Your task to perform on an android device: Show me the alarms in the clock app Image 0: 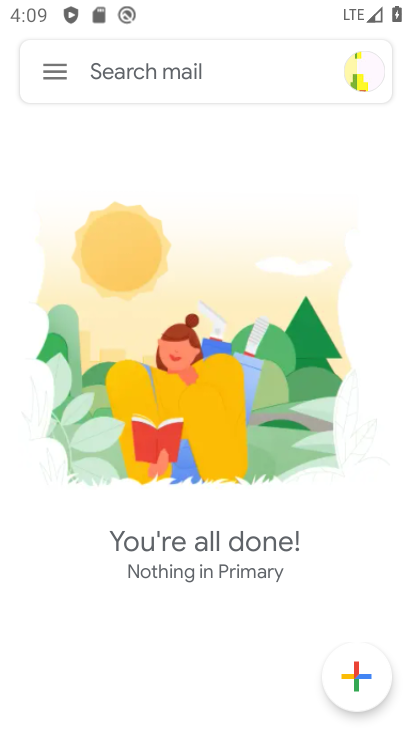
Step 0: press home button
Your task to perform on an android device: Show me the alarms in the clock app Image 1: 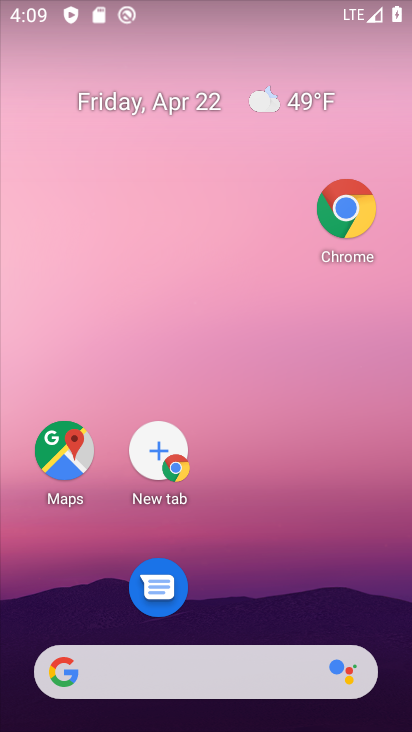
Step 1: drag from (243, 589) to (266, 257)
Your task to perform on an android device: Show me the alarms in the clock app Image 2: 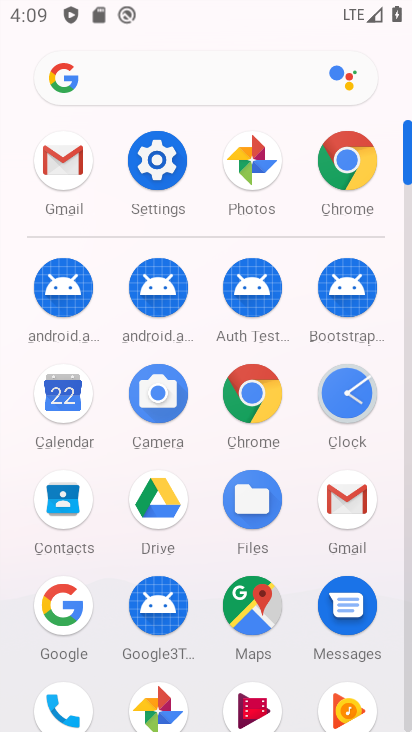
Step 2: click (345, 412)
Your task to perform on an android device: Show me the alarms in the clock app Image 3: 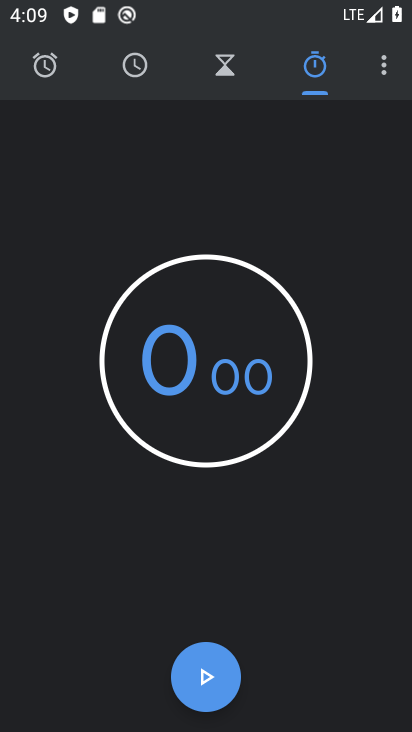
Step 3: click (32, 55)
Your task to perform on an android device: Show me the alarms in the clock app Image 4: 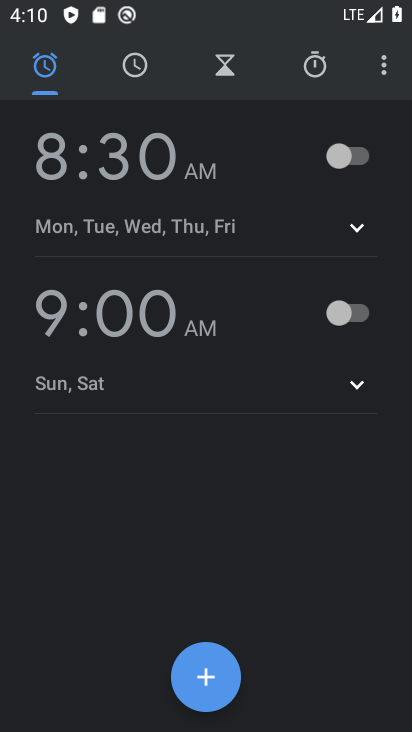
Step 4: task complete